Your task to perform on an android device: Go to sound settings Image 0: 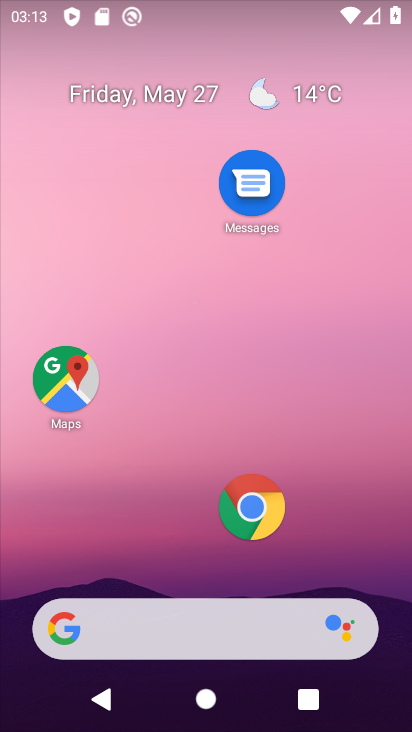
Step 0: drag from (213, 526) to (215, 35)
Your task to perform on an android device: Go to sound settings Image 1: 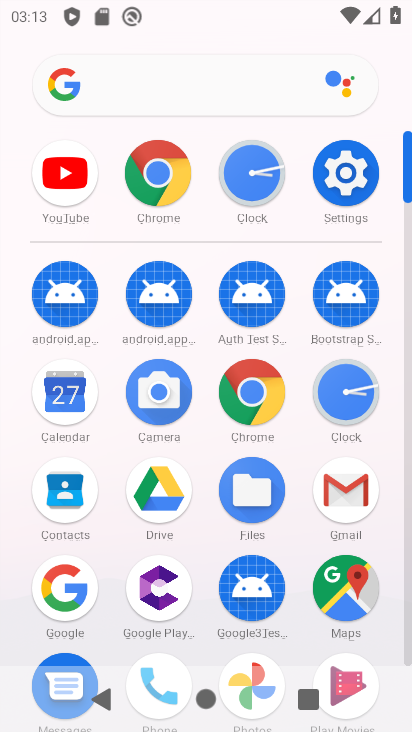
Step 1: drag from (202, 547) to (198, 239)
Your task to perform on an android device: Go to sound settings Image 2: 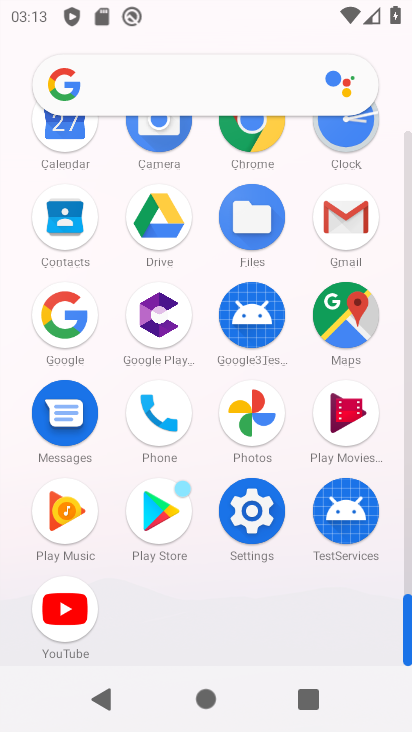
Step 2: click (243, 510)
Your task to perform on an android device: Go to sound settings Image 3: 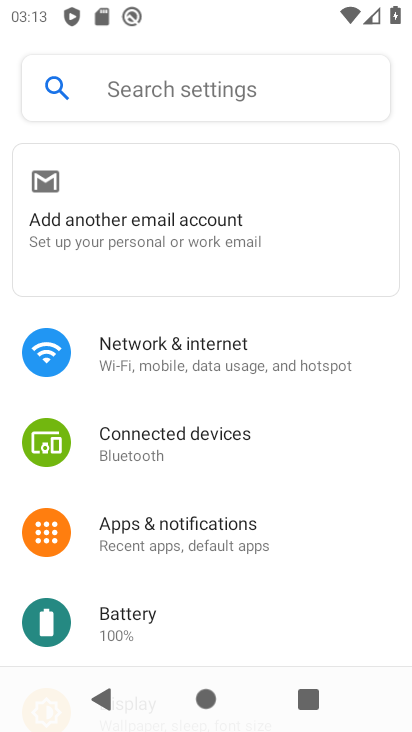
Step 3: drag from (188, 580) to (225, 207)
Your task to perform on an android device: Go to sound settings Image 4: 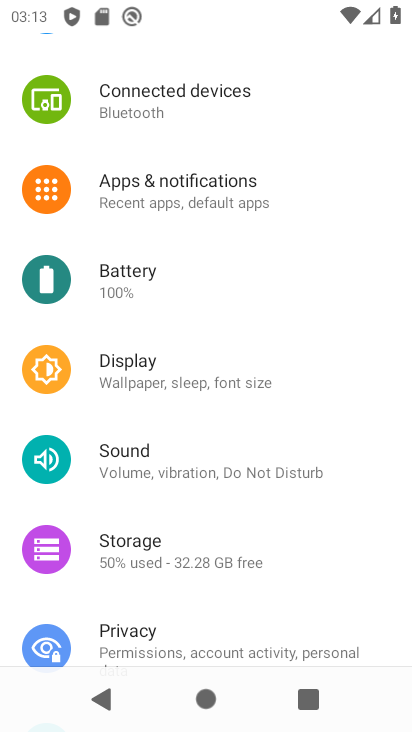
Step 4: click (161, 470)
Your task to perform on an android device: Go to sound settings Image 5: 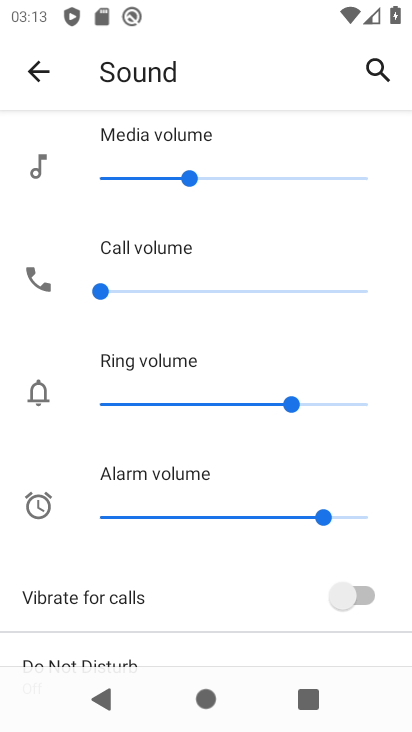
Step 5: task complete